Your task to perform on an android device: Go to CNN.com Image 0: 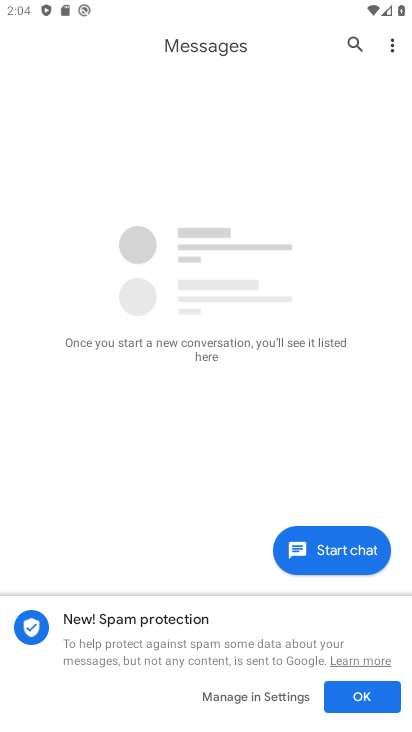
Step 0: press home button
Your task to perform on an android device: Go to CNN.com Image 1: 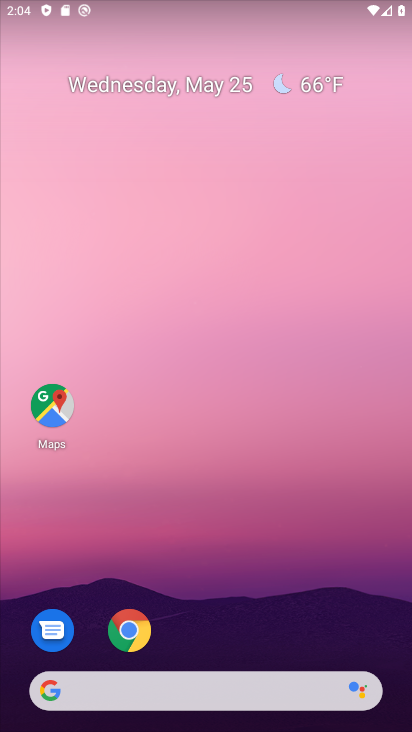
Step 1: drag from (213, 646) to (235, 157)
Your task to perform on an android device: Go to CNN.com Image 2: 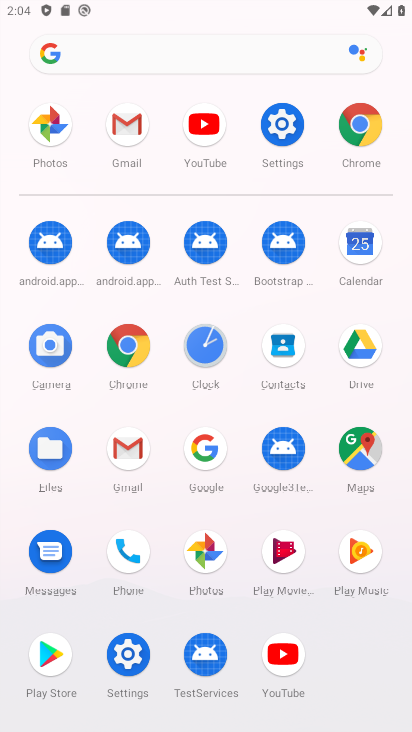
Step 2: click (360, 120)
Your task to perform on an android device: Go to CNN.com Image 3: 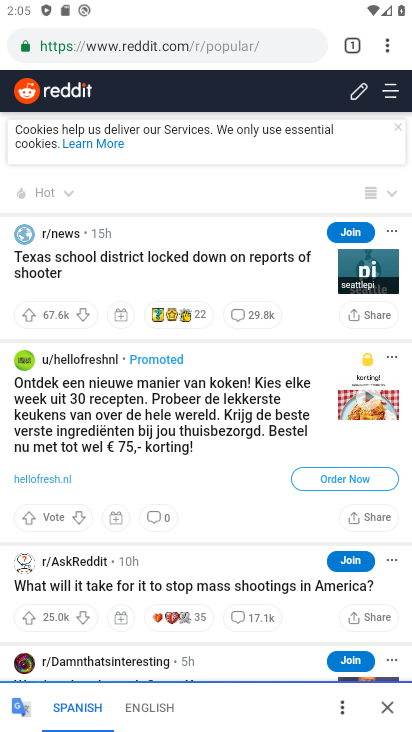
Step 3: click (350, 47)
Your task to perform on an android device: Go to CNN.com Image 4: 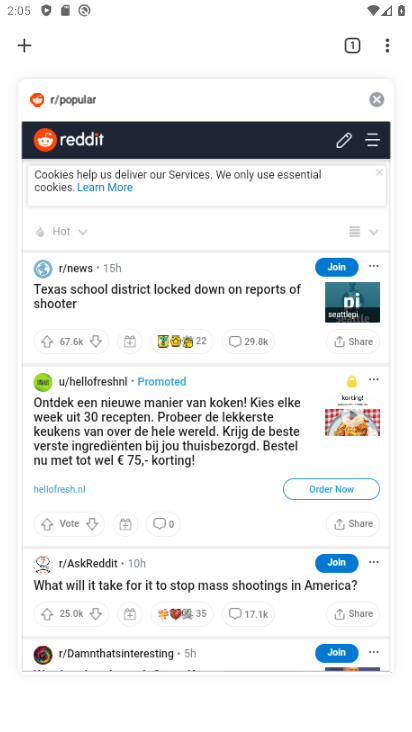
Step 4: click (374, 97)
Your task to perform on an android device: Go to CNN.com Image 5: 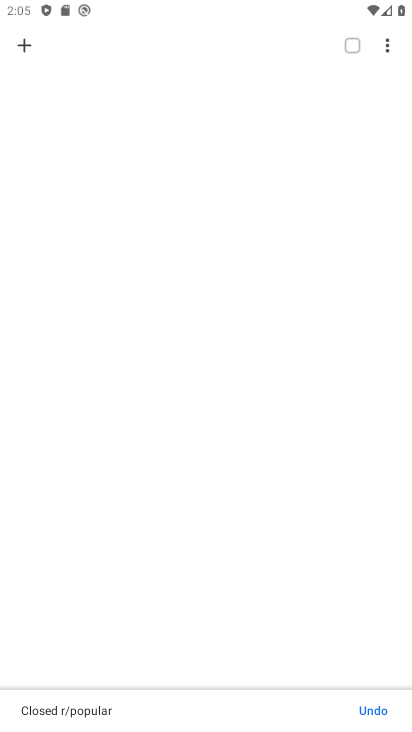
Step 5: click (21, 48)
Your task to perform on an android device: Go to CNN.com Image 6: 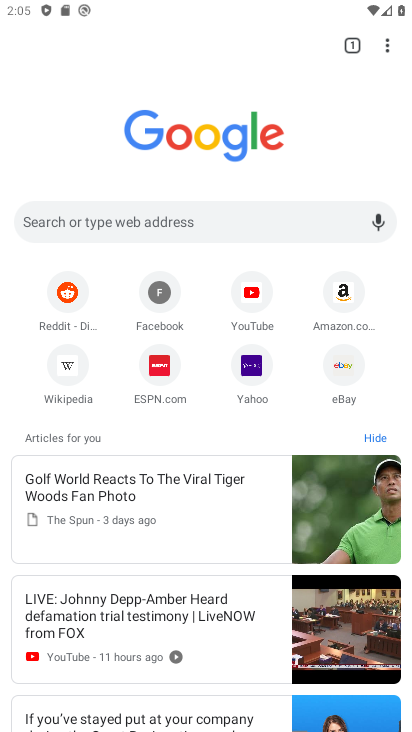
Step 6: click (98, 215)
Your task to perform on an android device: Go to CNN.com Image 7: 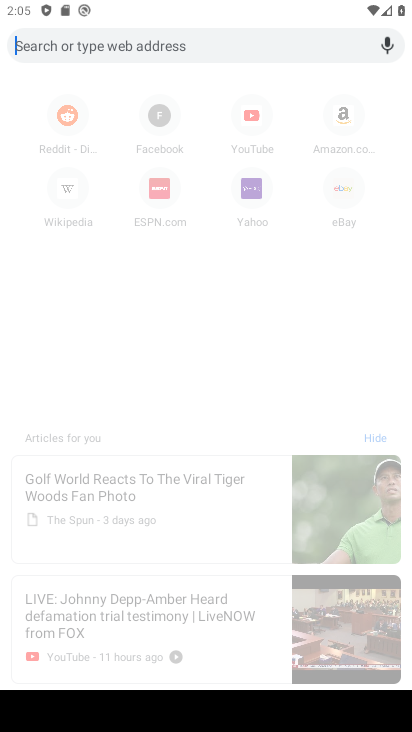
Step 7: type "cnn.com"
Your task to perform on an android device: Go to CNN.com Image 8: 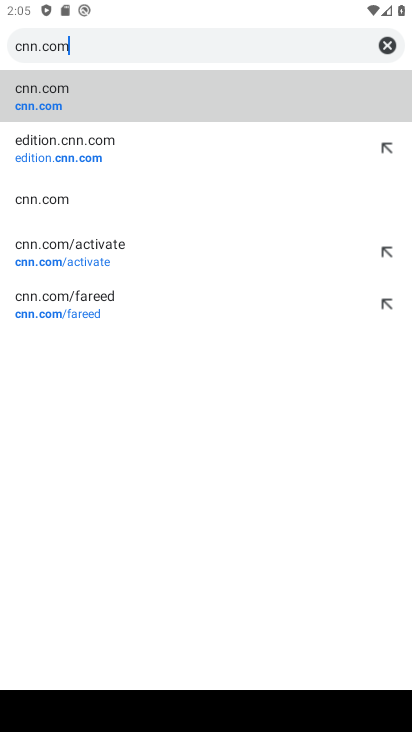
Step 8: click (55, 101)
Your task to perform on an android device: Go to CNN.com Image 9: 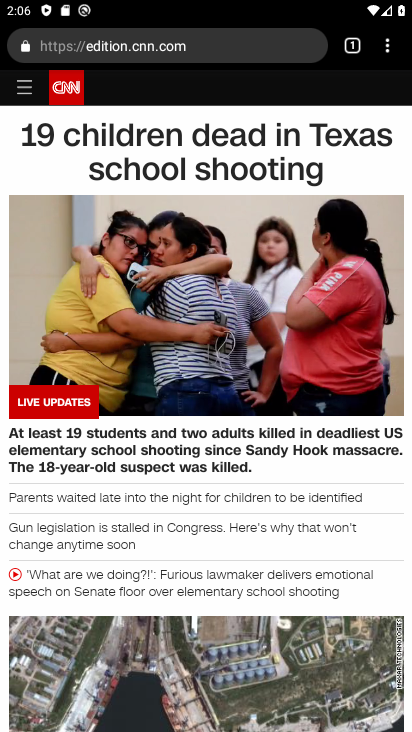
Step 9: task complete